Your task to perform on an android device: toggle priority inbox in the gmail app Image 0: 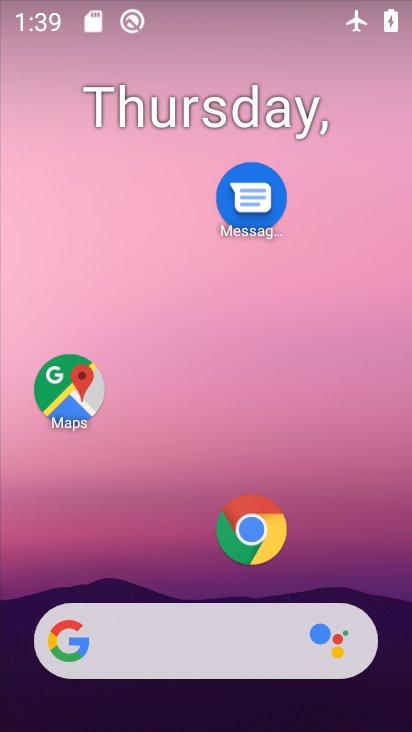
Step 0: drag from (286, 572) to (293, 135)
Your task to perform on an android device: toggle priority inbox in the gmail app Image 1: 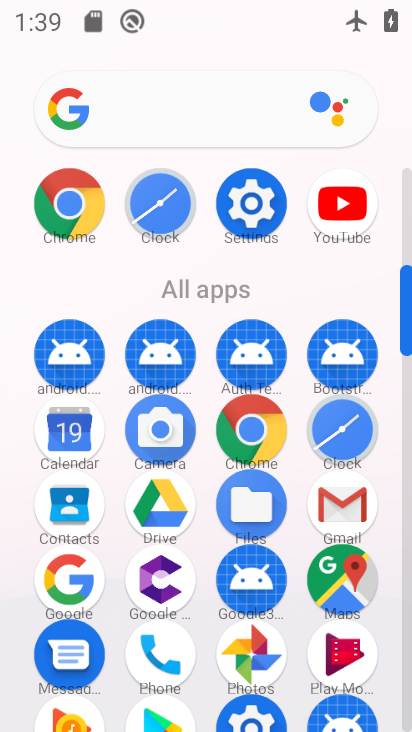
Step 1: click (342, 514)
Your task to perform on an android device: toggle priority inbox in the gmail app Image 2: 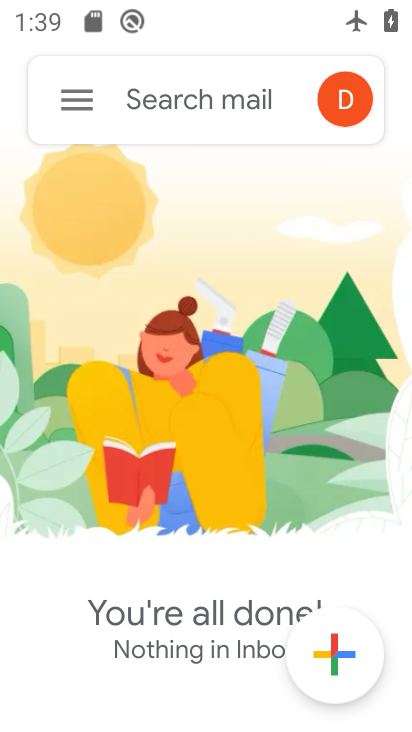
Step 2: click (76, 100)
Your task to perform on an android device: toggle priority inbox in the gmail app Image 3: 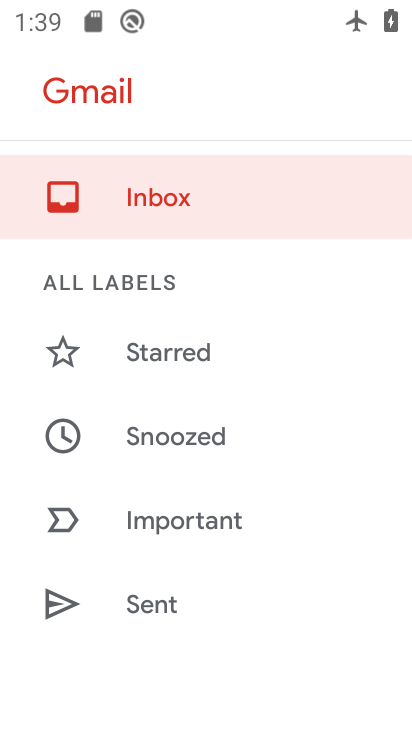
Step 3: click (228, 216)
Your task to perform on an android device: toggle priority inbox in the gmail app Image 4: 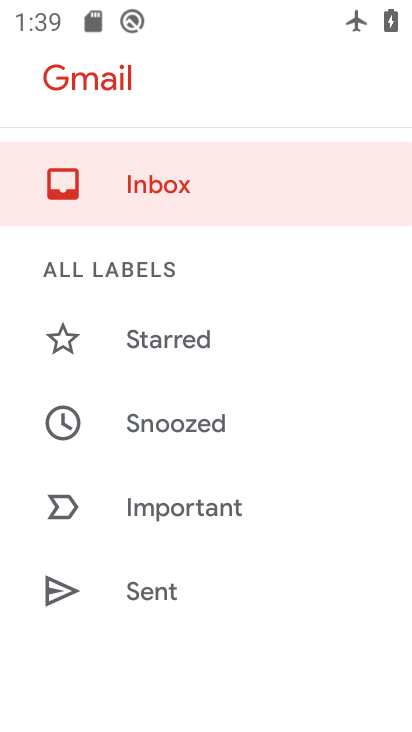
Step 4: click (244, 162)
Your task to perform on an android device: toggle priority inbox in the gmail app Image 5: 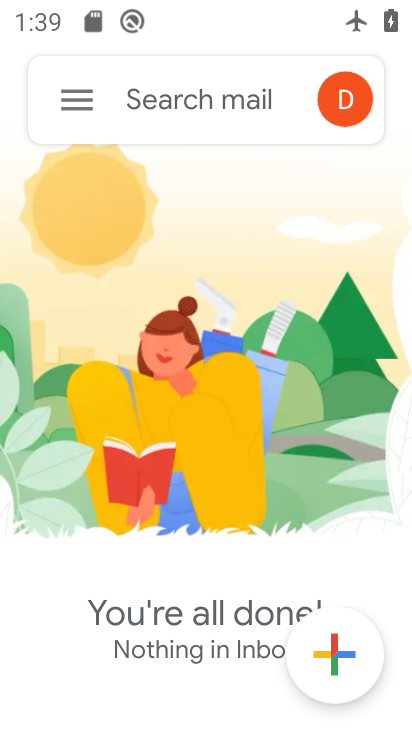
Step 5: click (78, 103)
Your task to perform on an android device: toggle priority inbox in the gmail app Image 6: 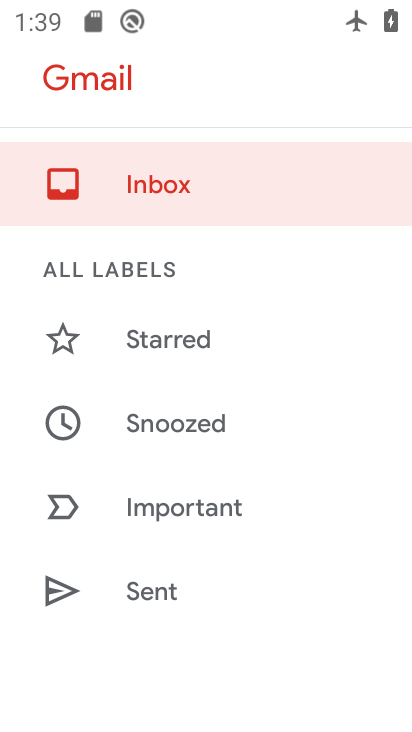
Step 6: drag from (196, 582) to (229, 208)
Your task to perform on an android device: toggle priority inbox in the gmail app Image 7: 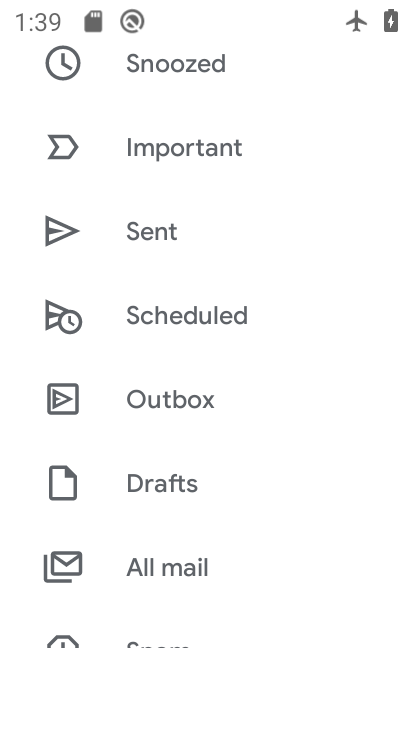
Step 7: drag from (178, 558) to (239, 163)
Your task to perform on an android device: toggle priority inbox in the gmail app Image 8: 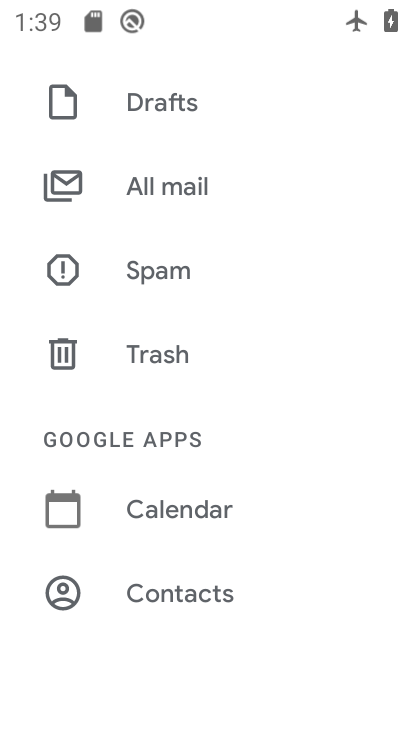
Step 8: click (178, 254)
Your task to perform on an android device: toggle priority inbox in the gmail app Image 9: 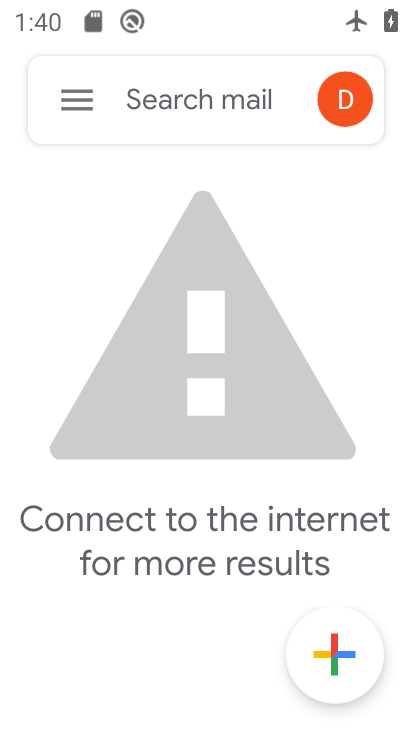
Step 9: click (84, 112)
Your task to perform on an android device: toggle priority inbox in the gmail app Image 10: 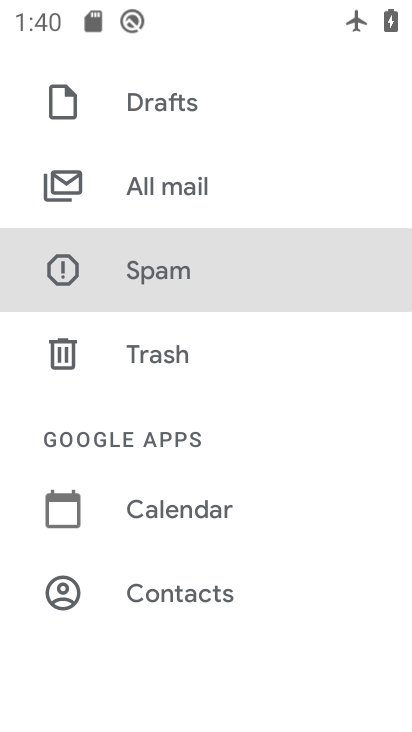
Step 10: drag from (191, 577) to (214, 180)
Your task to perform on an android device: toggle priority inbox in the gmail app Image 11: 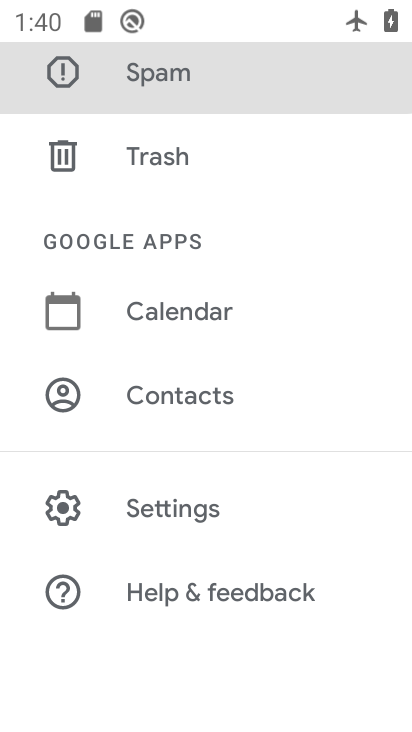
Step 11: click (166, 508)
Your task to perform on an android device: toggle priority inbox in the gmail app Image 12: 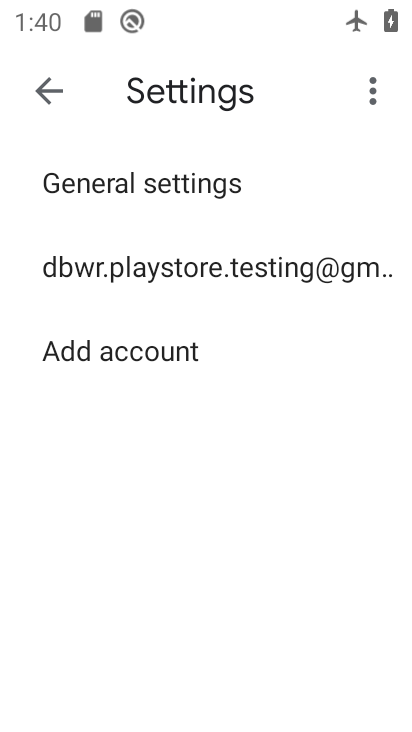
Step 12: click (203, 284)
Your task to perform on an android device: toggle priority inbox in the gmail app Image 13: 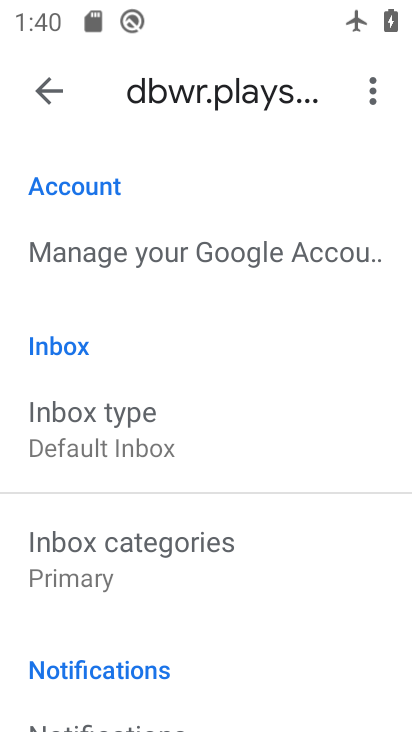
Step 13: click (121, 448)
Your task to perform on an android device: toggle priority inbox in the gmail app Image 14: 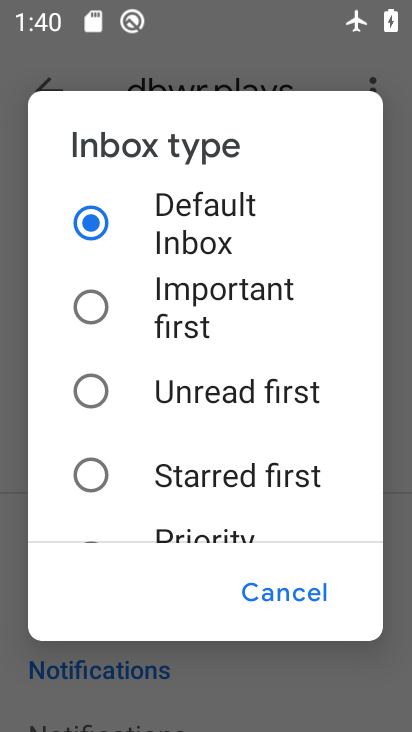
Step 14: drag from (166, 425) to (177, 240)
Your task to perform on an android device: toggle priority inbox in the gmail app Image 15: 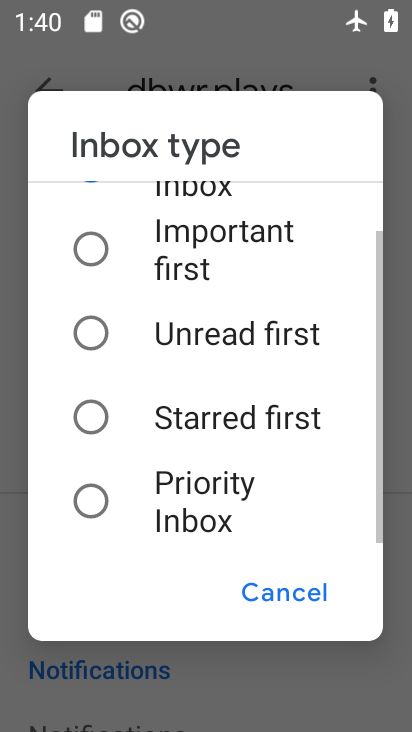
Step 15: click (72, 520)
Your task to perform on an android device: toggle priority inbox in the gmail app Image 16: 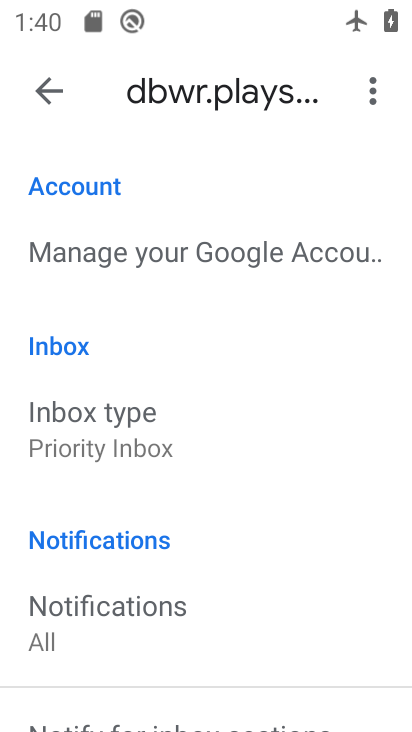
Step 16: task complete